Your task to perform on an android device: Open display settings Image 0: 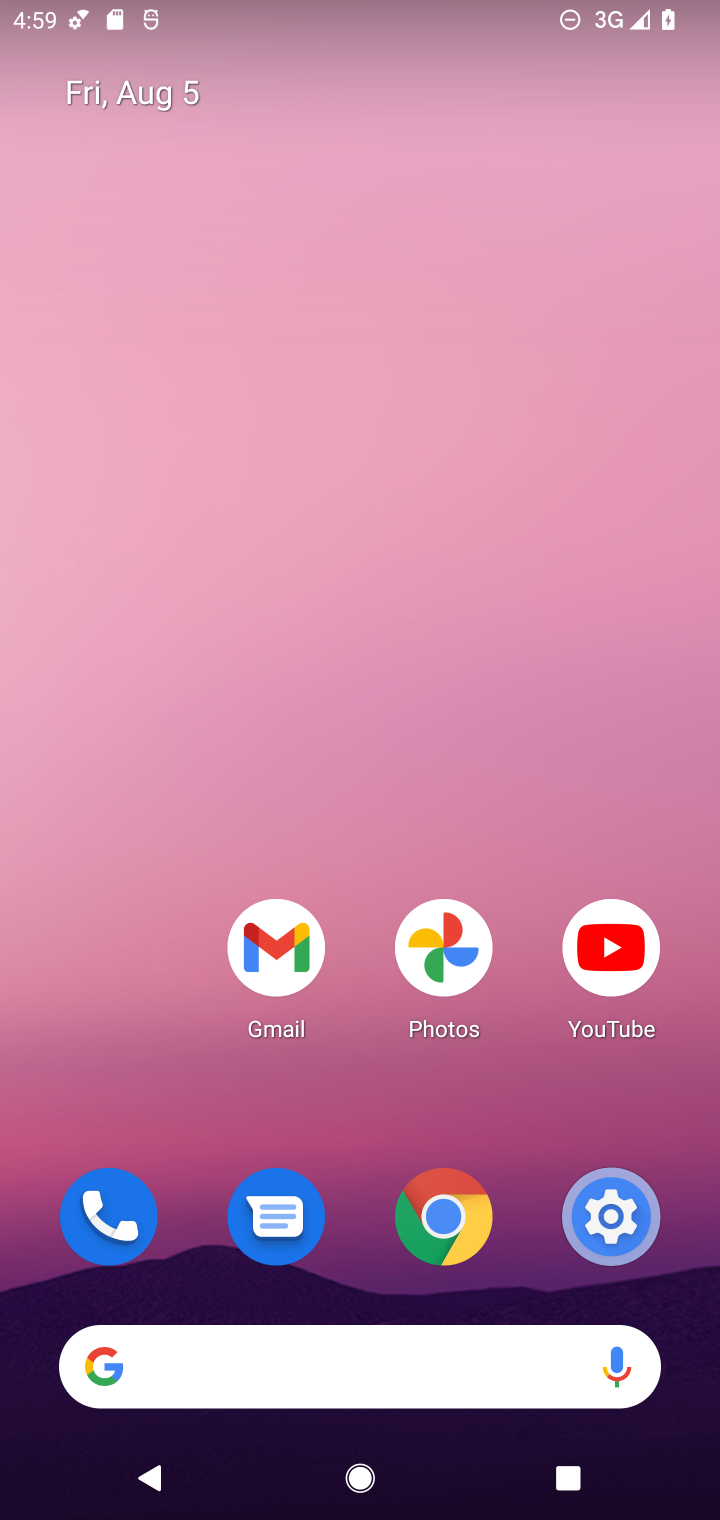
Step 0: click (611, 1214)
Your task to perform on an android device: Open display settings Image 1: 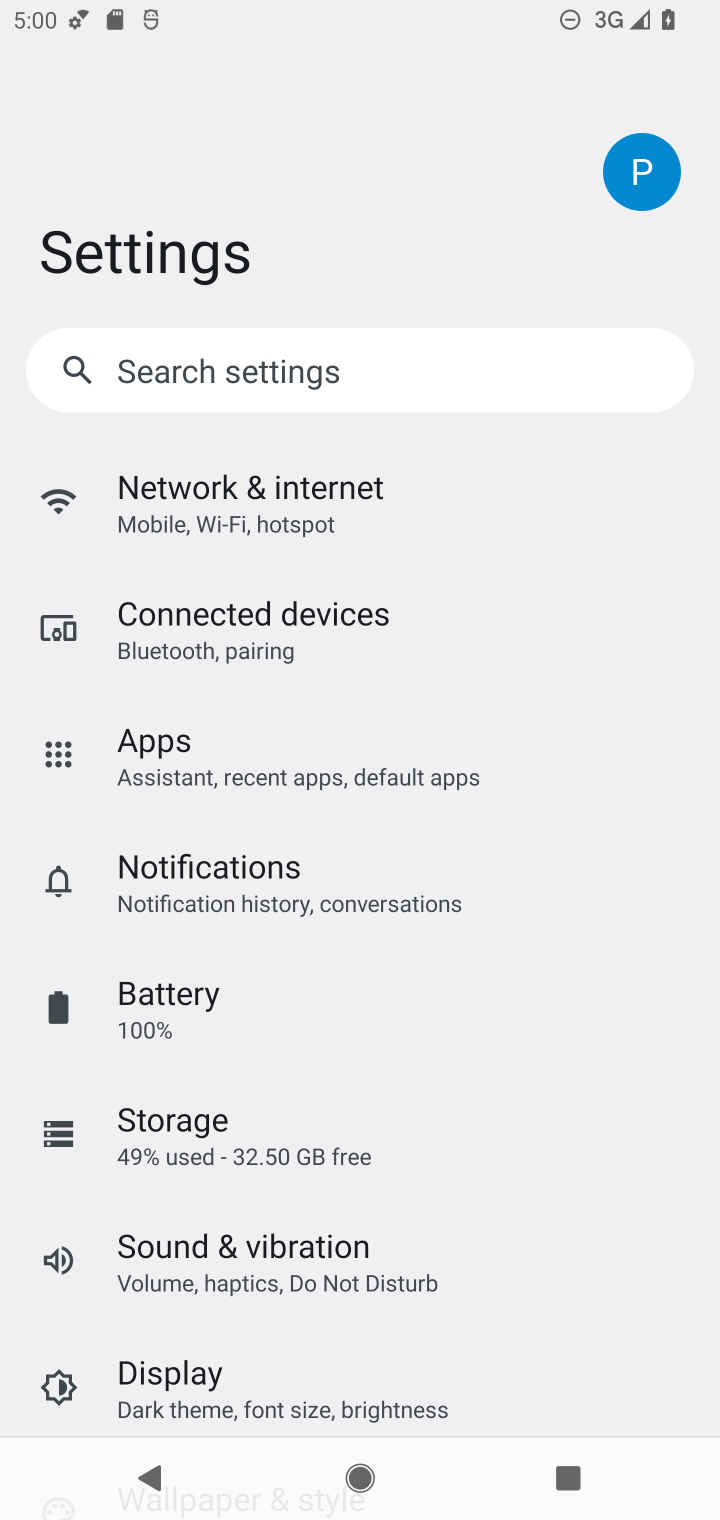
Step 1: click (361, 1388)
Your task to perform on an android device: Open display settings Image 2: 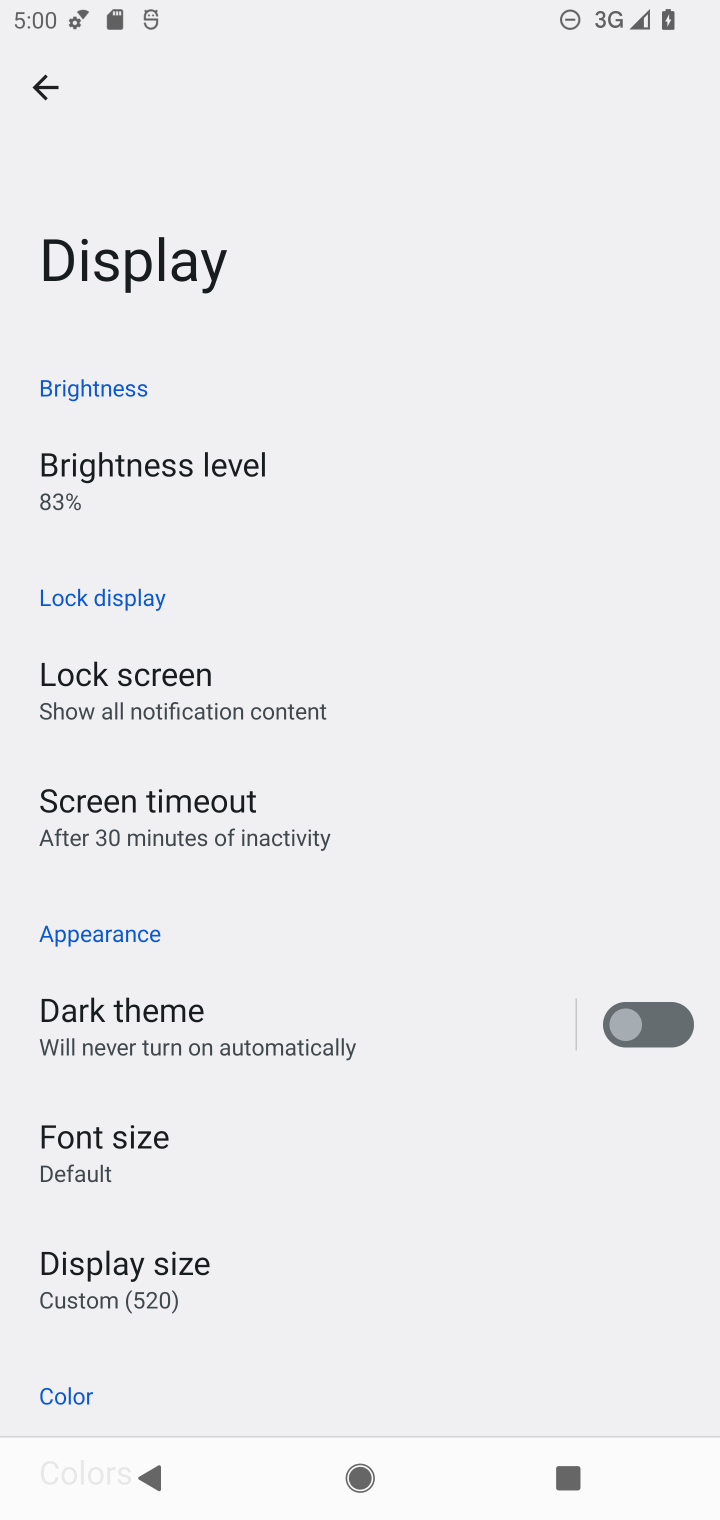
Step 2: task complete